Your task to perform on an android device: Go to Google maps Image 0: 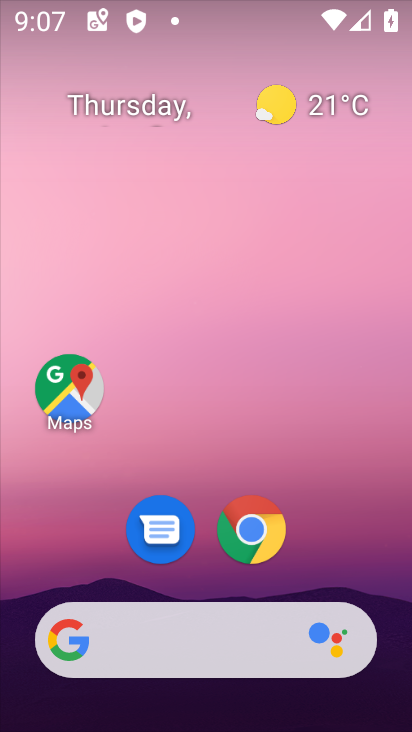
Step 0: drag from (233, 721) to (292, 29)
Your task to perform on an android device: Go to Google maps Image 1: 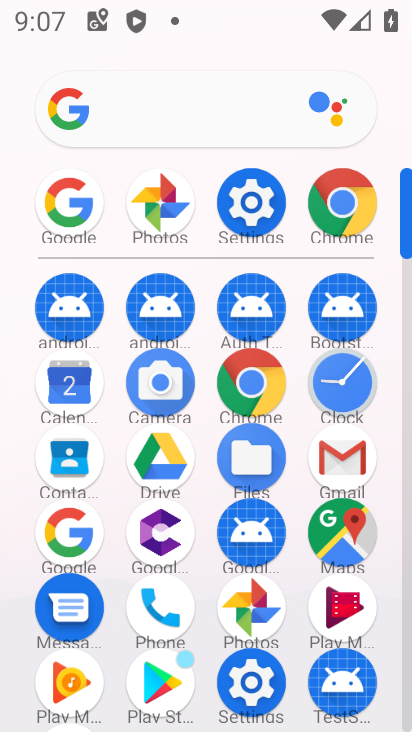
Step 1: click (341, 544)
Your task to perform on an android device: Go to Google maps Image 2: 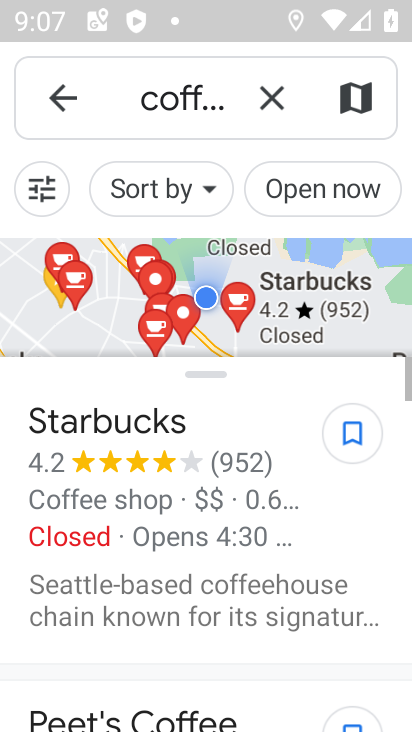
Step 2: task complete